Your task to perform on an android device: When is my next appointment? Image 0: 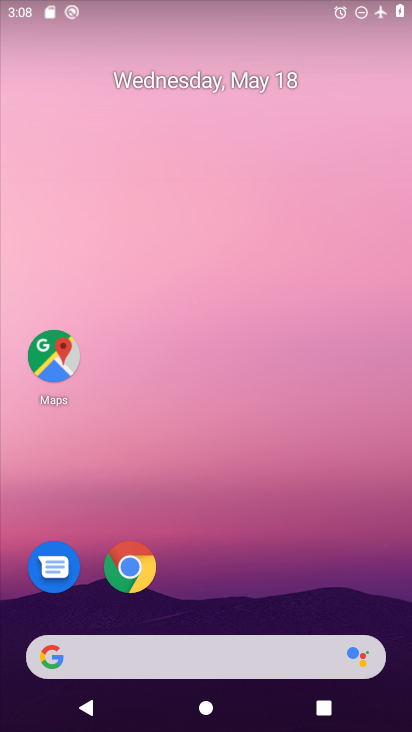
Step 0: drag from (259, 566) to (230, 180)
Your task to perform on an android device: When is my next appointment? Image 1: 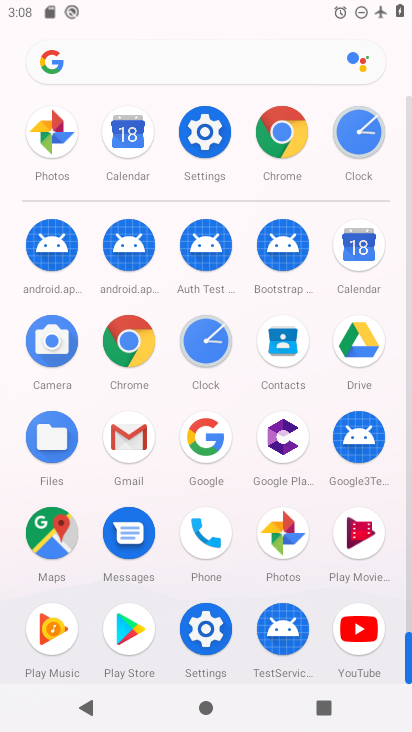
Step 1: click (347, 235)
Your task to perform on an android device: When is my next appointment? Image 2: 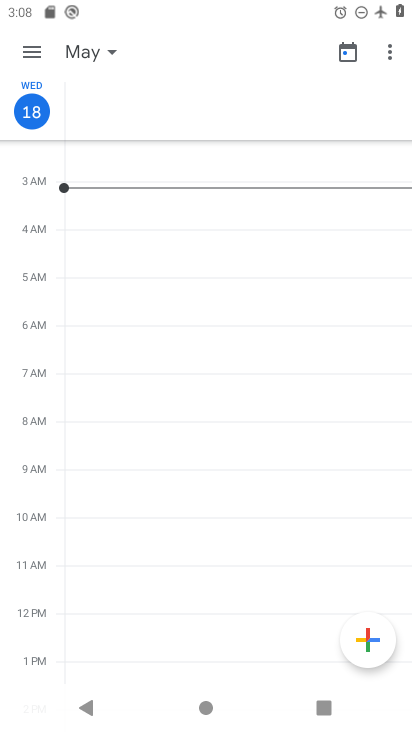
Step 2: drag from (296, 569) to (228, 48)
Your task to perform on an android device: When is my next appointment? Image 3: 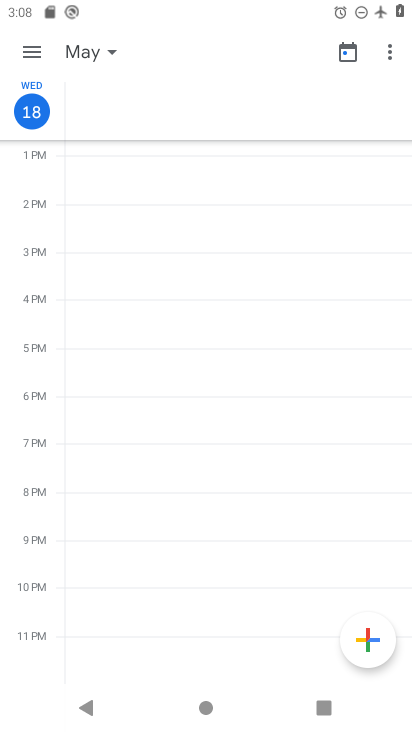
Step 3: click (25, 38)
Your task to perform on an android device: When is my next appointment? Image 4: 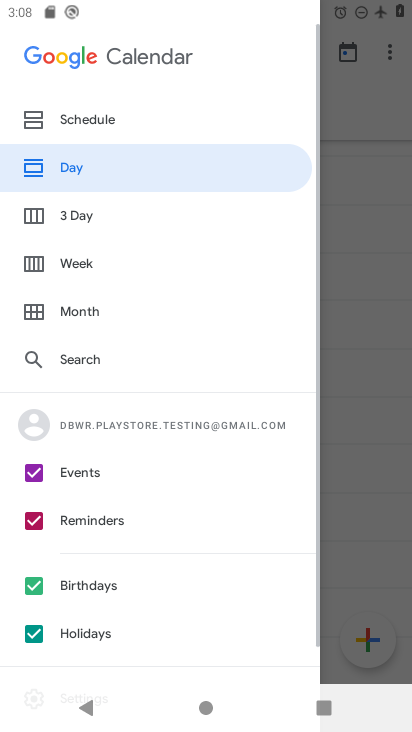
Step 4: click (104, 311)
Your task to perform on an android device: When is my next appointment? Image 5: 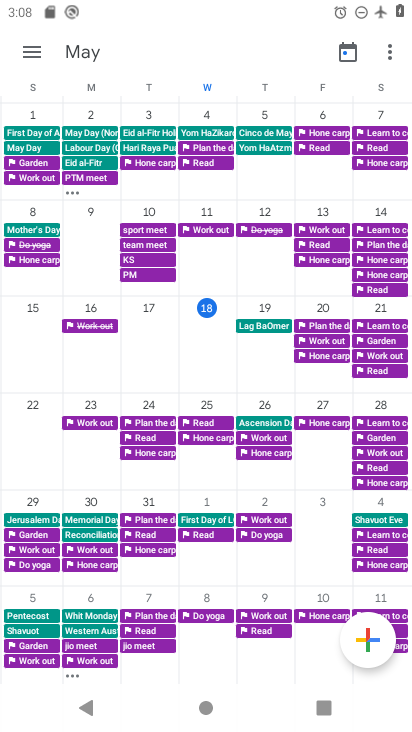
Step 5: click (257, 309)
Your task to perform on an android device: When is my next appointment? Image 6: 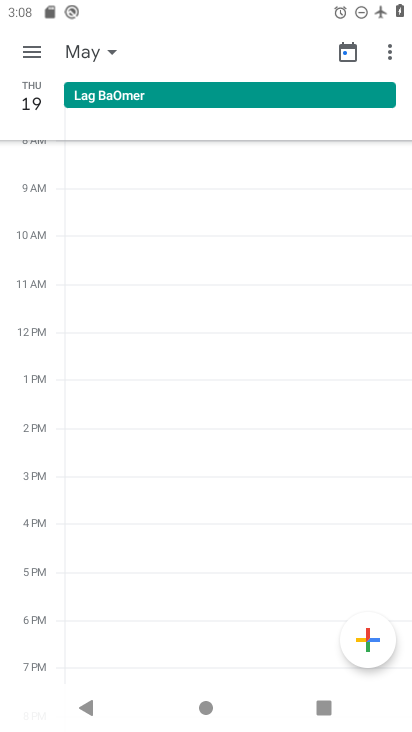
Step 6: task complete